Your task to perform on an android device: Show me productivity apps on the Play Store Image 0: 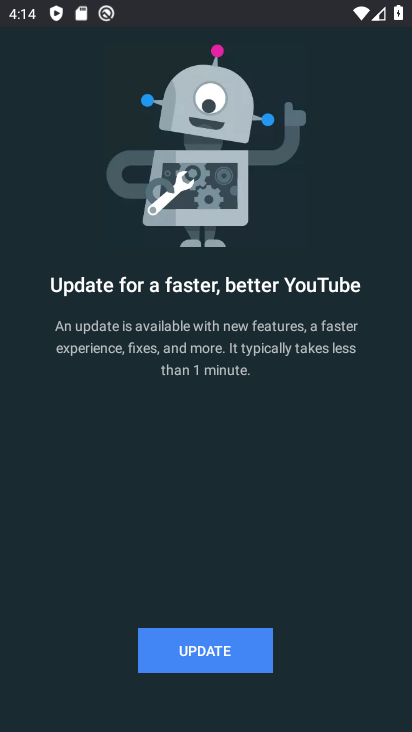
Step 0: press home button
Your task to perform on an android device: Show me productivity apps on the Play Store Image 1: 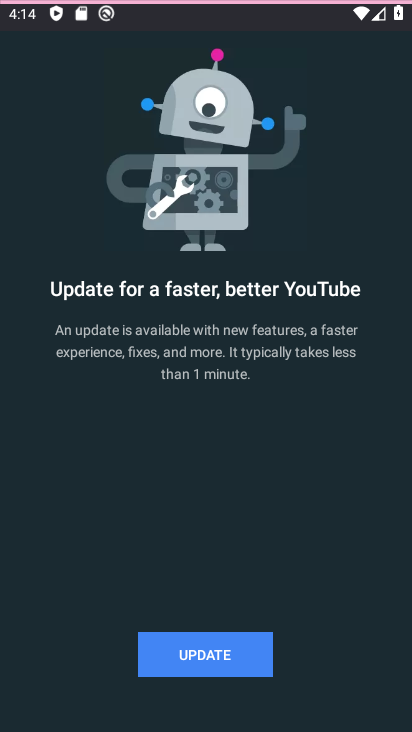
Step 1: press home button
Your task to perform on an android device: Show me productivity apps on the Play Store Image 2: 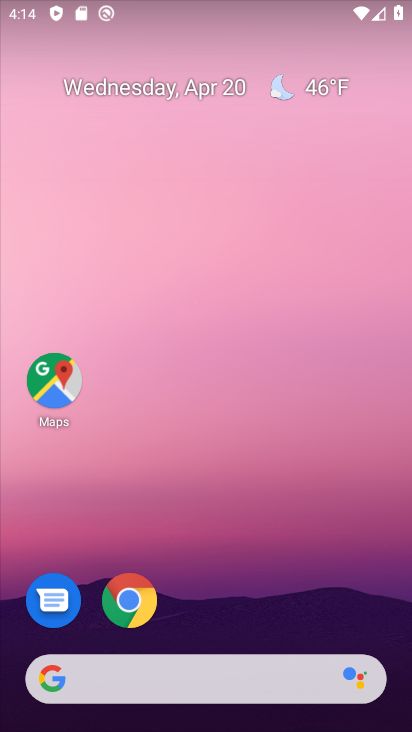
Step 2: drag from (214, 635) to (202, 154)
Your task to perform on an android device: Show me productivity apps on the Play Store Image 3: 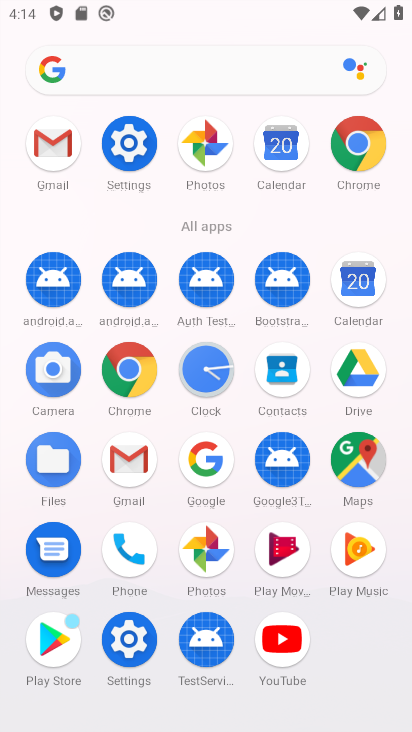
Step 3: click (52, 632)
Your task to perform on an android device: Show me productivity apps on the Play Store Image 4: 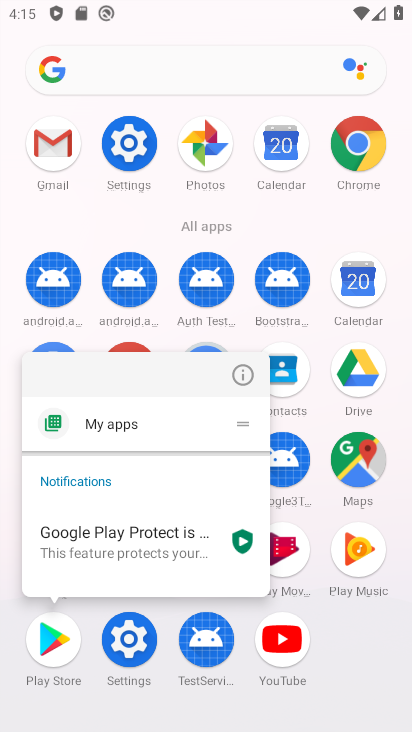
Step 4: click (54, 639)
Your task to perform on an android device: Show me productivity apps on the Play Store Image 5: 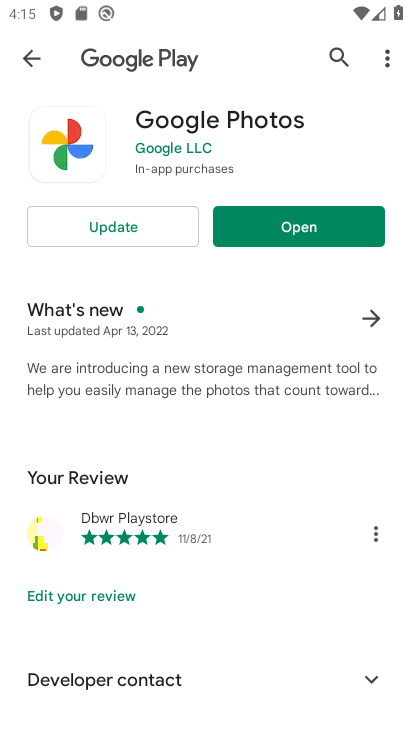
Step 5: click (113, 229)
Your task to perform on an android device: Show me productivity apps on the Play Store Image 6: 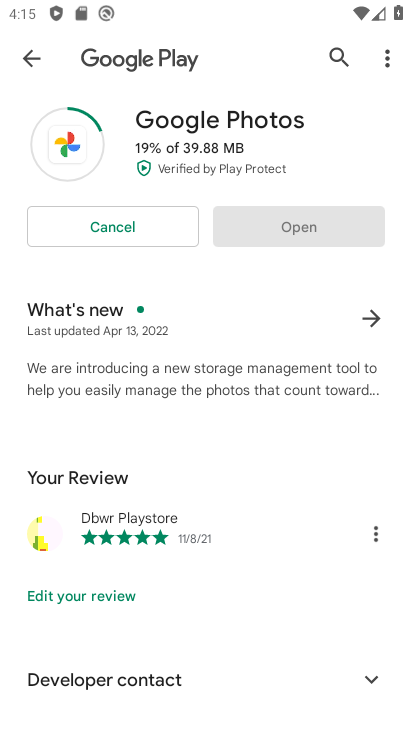
Step 6: click (29, 65)
Your task to perform on an android device: Show me productivity apps on the Play Store Image 7: 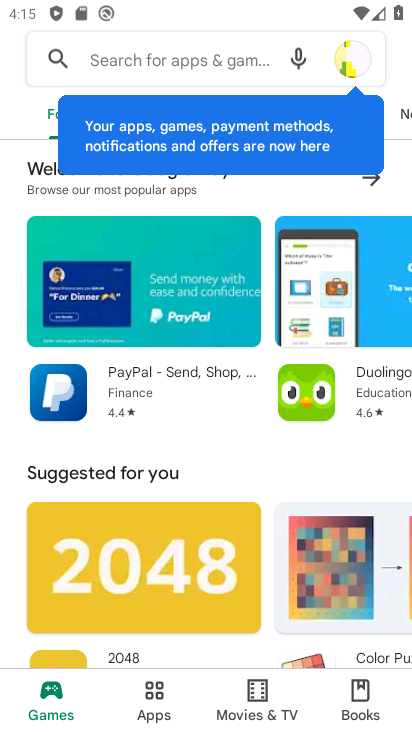
Step 7: drag from (153, 487) to (164, 144)
Your task to perform on an android device: Show me productivity apps on the Play Store Image 8: 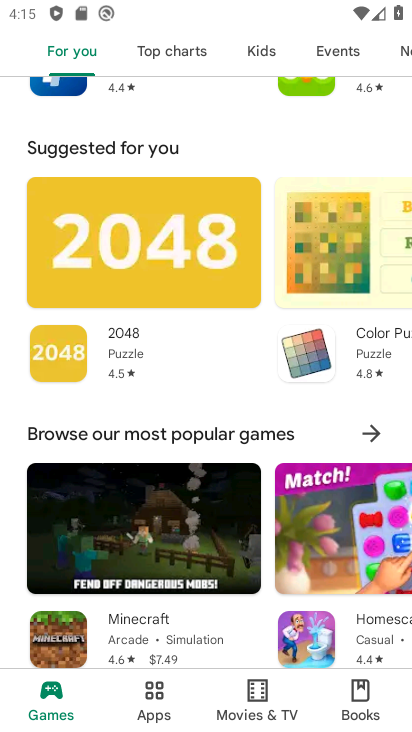
Step 8: drag from (195, 508) to (199, 131)
Your task to perform on an android device: Show me productivity apps on the Play Store Image 9: 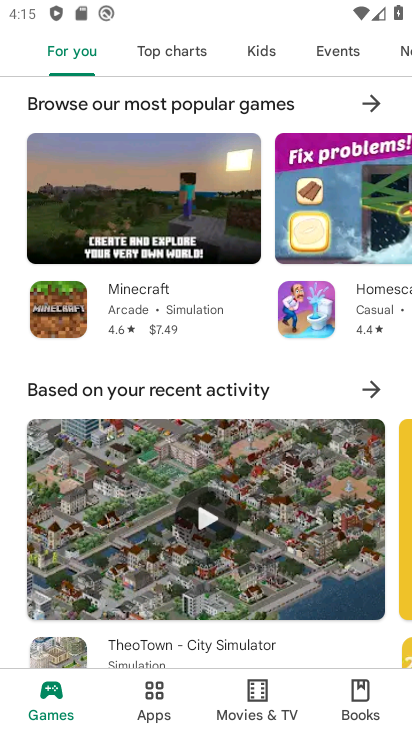
Step 9: drag from (186, 486) to (209, 136)
Your task to perform on an android device: Show me productivity apps on the Play Store Image 10: 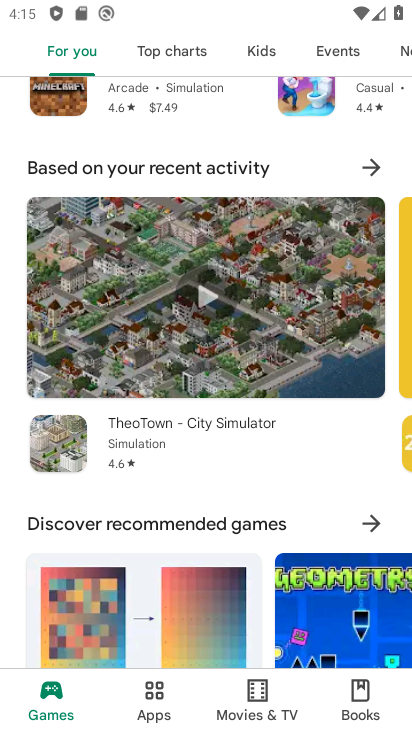
Step 10: drag from (205, 555) to (228, 144)
Your task to perform on an android device: Show me productivity apps on the Play Store Image 11: 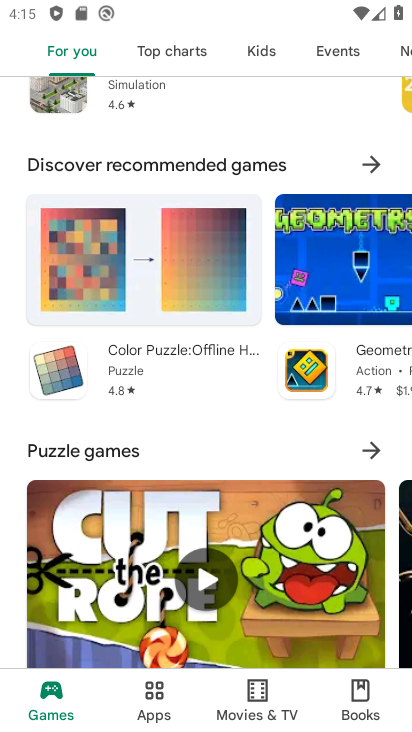
Step 11: drag from (231, 564) to (226, 138)
Your task to perform on an android device: Show me productivity apps on the Play Store Image 12: 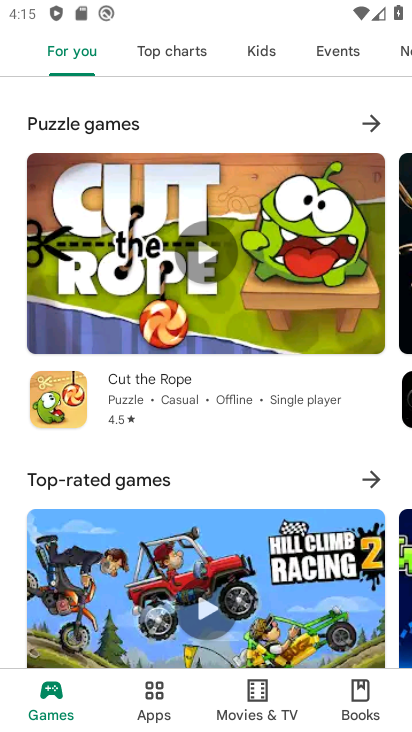
Step 12: drag from (198, 577) to (232, 186)
Your task to perform on an android device: Show me productivity apps on the Play Store Image 13: 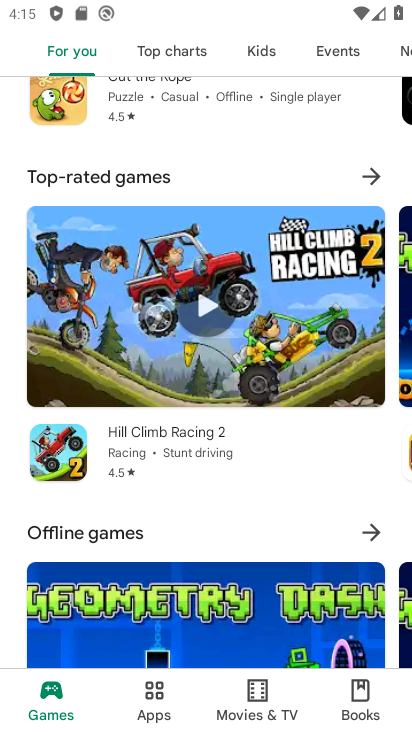
Step 13: drag from (227, 499) to (245, 146)
Your task to perform on an android device: Show me productivity apps on the Play Store Image 14: 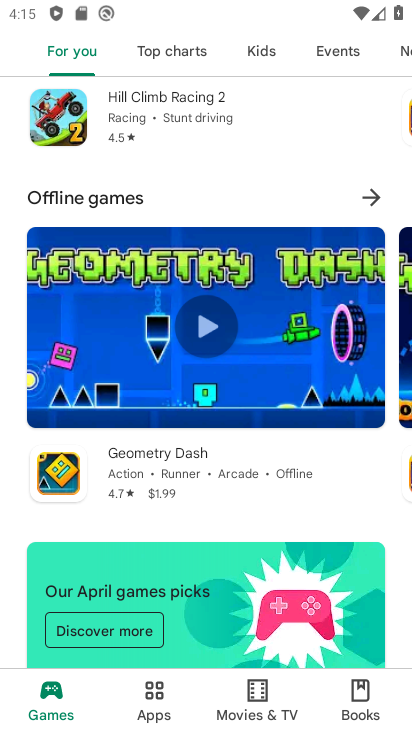
Step 14: drag from (212, 560) to (237, 199)
Your task to perform on an android device: Show me productivity apps on the Play Store Image 15: 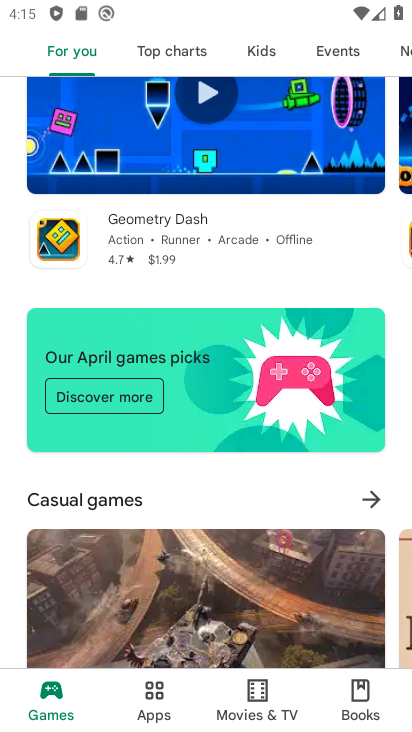
Step 15: drag from (212, 574) to (224, 234)
Your task to perform on an android device: Show me productivity apps on the Play Store Image 16: 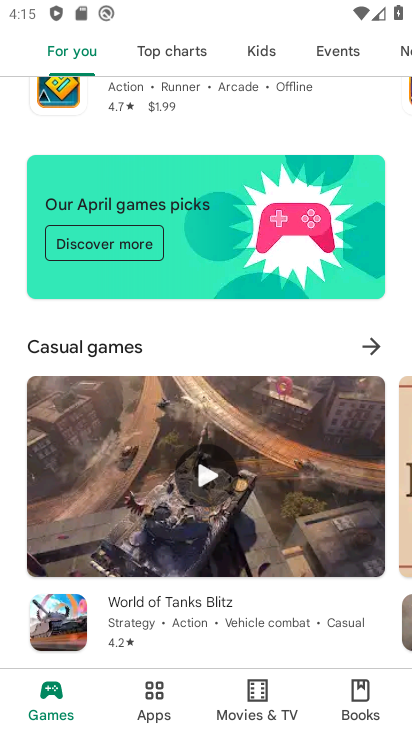
Step 16: click (181, 61)
Your task to perform on an android device: Show me productivity apps on the Play Store Image 17: 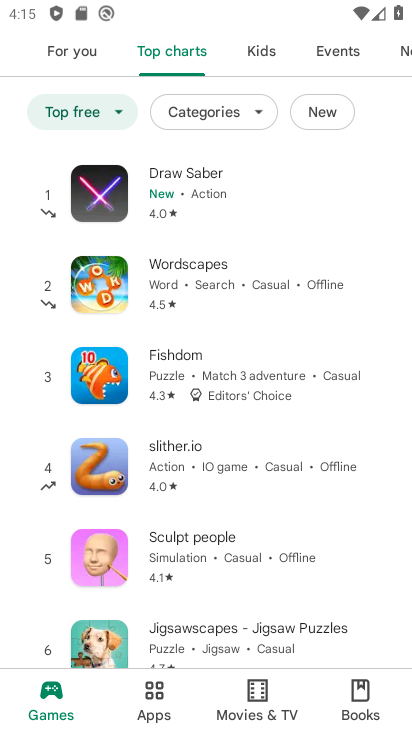
Step 17: click (256, 60)
Your task to perform on an android device: Show me productivity apps on the Play Store Image 18: 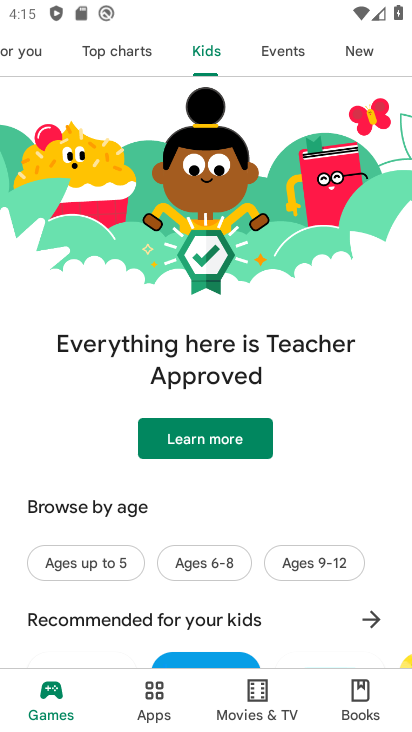
Step 18: click (285, 59)
Your task to perform on an android device: Show me productivity apps on the Play Store Image 19: 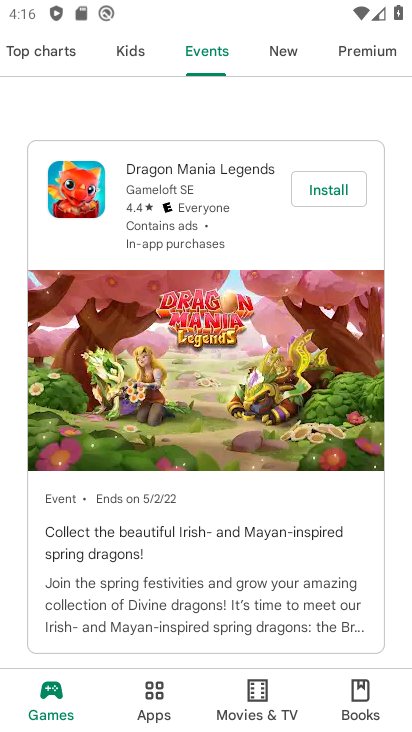
Step 19: task complete